Your task to perform on an android device: allow notifications from all sites in the chrome app Image 0: 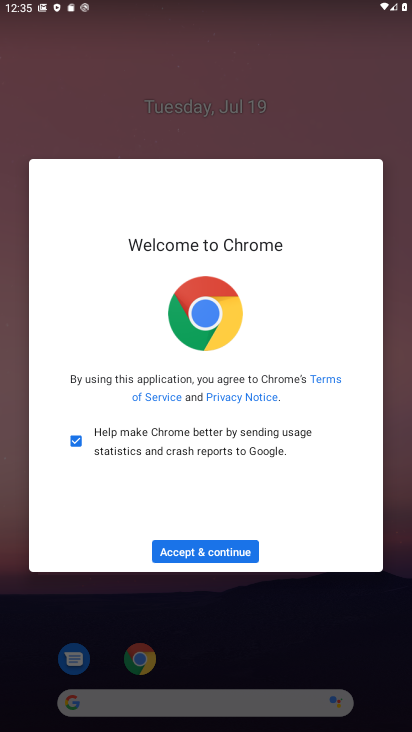
Step 0: click (216, 550)
Your task to perform on an android device: allow notifications from all sites in the chrome app Image 1: 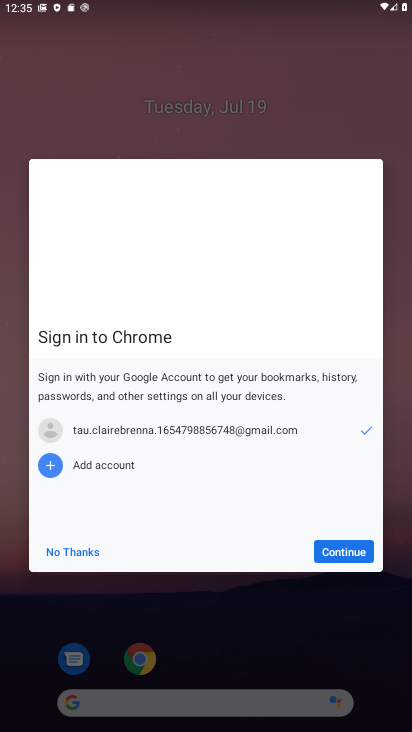
Step 1: click (353, 547)
Your task to perform on an android device: allow notifications from all sites in the chrome app Image 2: 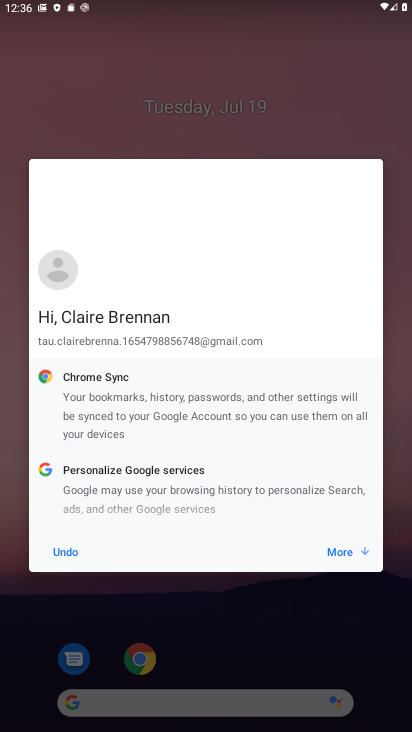
Step 2: click (353, 547)
Your task to perform on an android device: allow notifications from all sites in the chrome app Image 3: 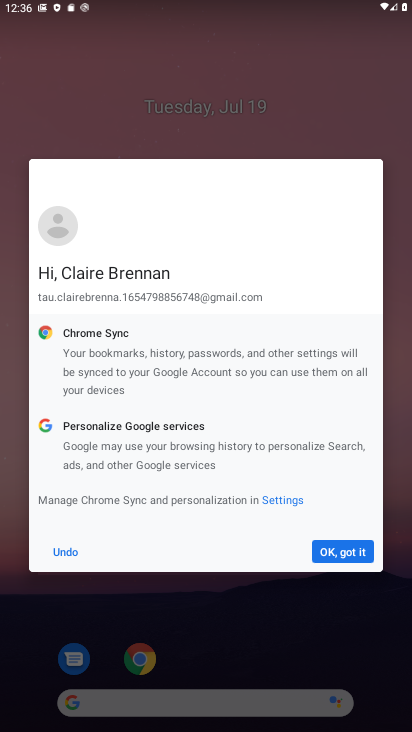
Step 3: click (353, 547)
Your task to perform on an android device: allow notifications from all sites in the chrome app Image 4: 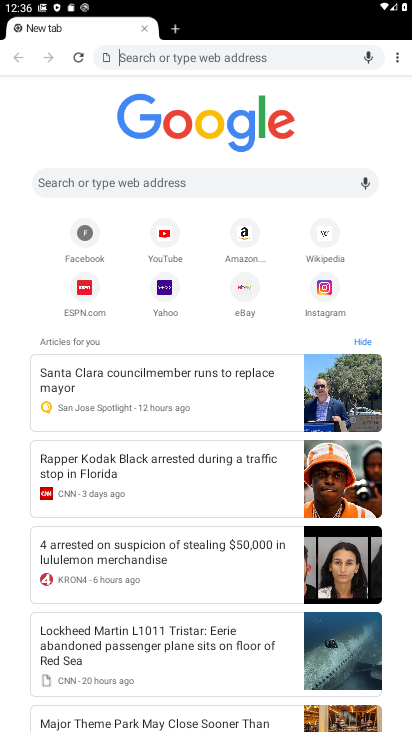
Step 4: click (394, 57)
Your task to perform on an android device: allow notifications from all sites in the chrome app Image 5: 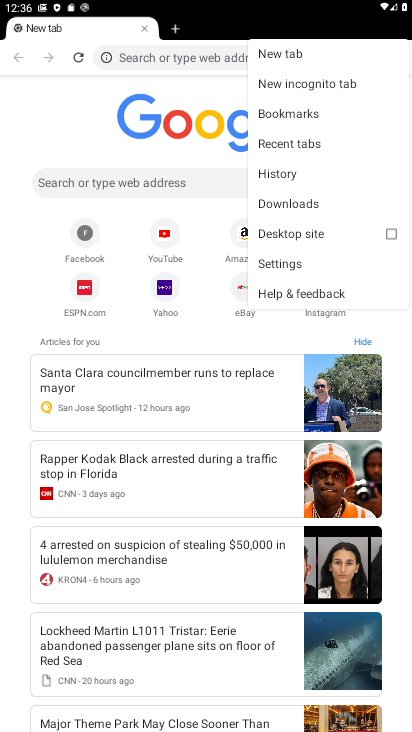
Step 5: click (261, 258)
Your task to perform on an android device: allow notifications from all sites in the chrome app Image 6: 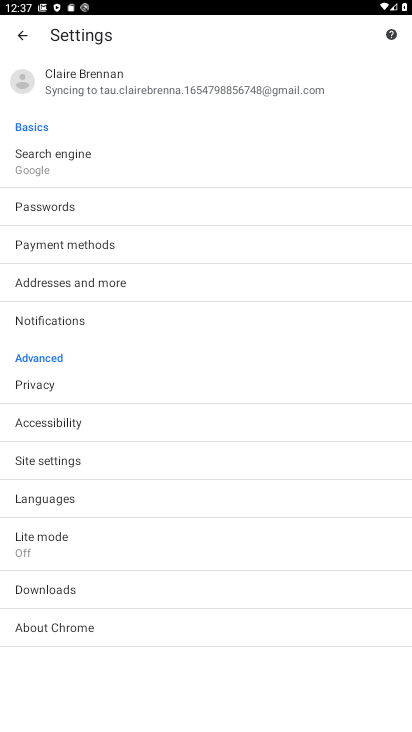
Step 6: click (51, 462)
Your task to perform on an android device: allow notifications from all sites in the chrome app Image 7: 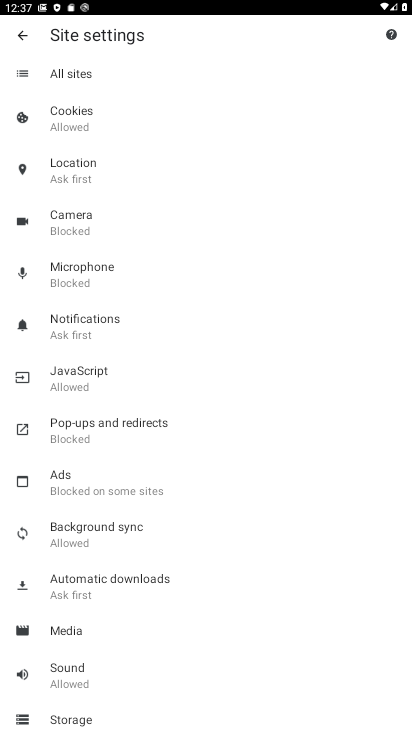
Step 7: click (73, 330)
Your task to perform on an android device: allow notifications from all sites in the chrome app Image 8: 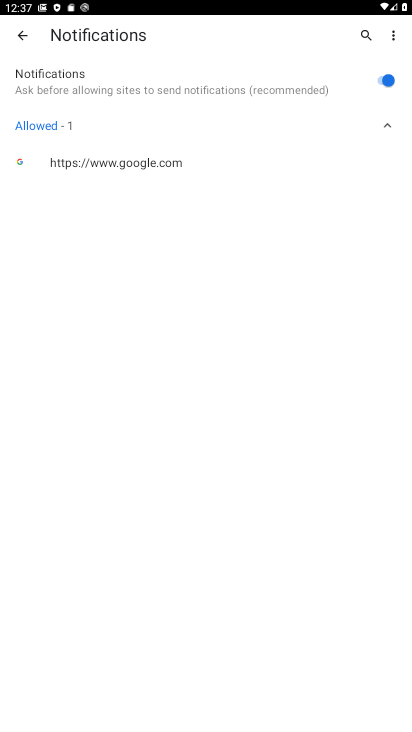
Step 8: task complete